Your task to perform on an android device: open sync settings in chrome Image 0: 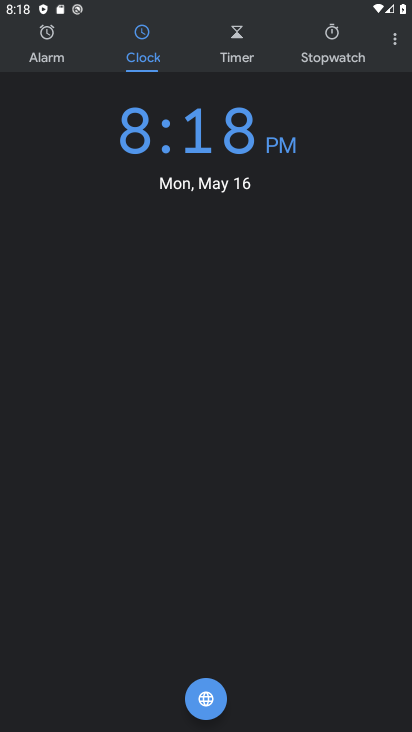
Step 0: press home button
Your task to perform on an android device: open sync settings in chrome Image 1: 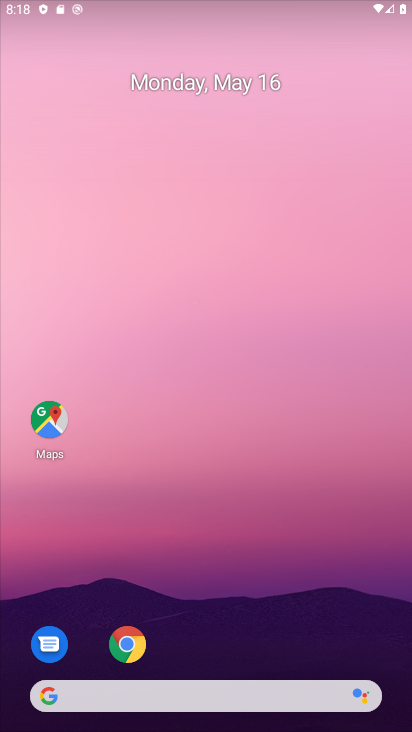
Step 1: click (118, 658)
Your task to perform on an android device: open sync settings in chrome Image 2: 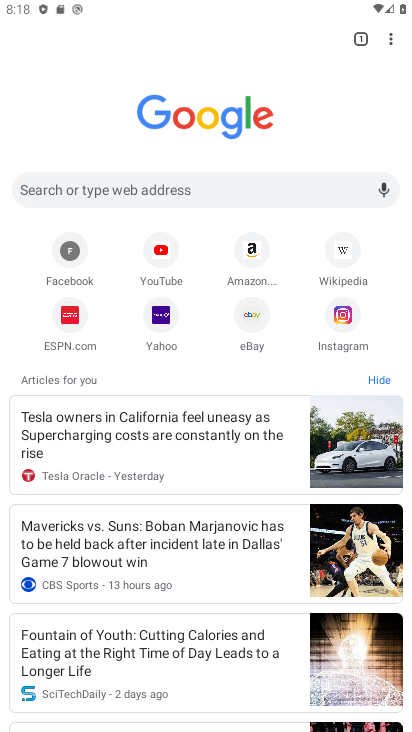
Step 2: click (385, 36)
Your task to perform on an android device: open sync settings in chrome Image 3: 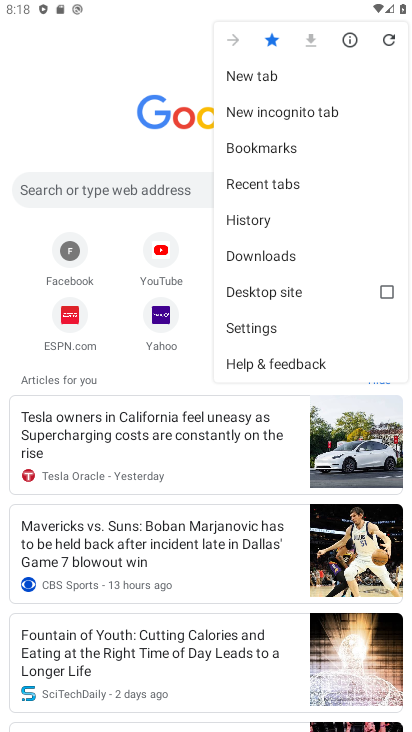
Step 3: click (273, 331)
Your task to perform on an android device: open sync settings in chrome Image 4: 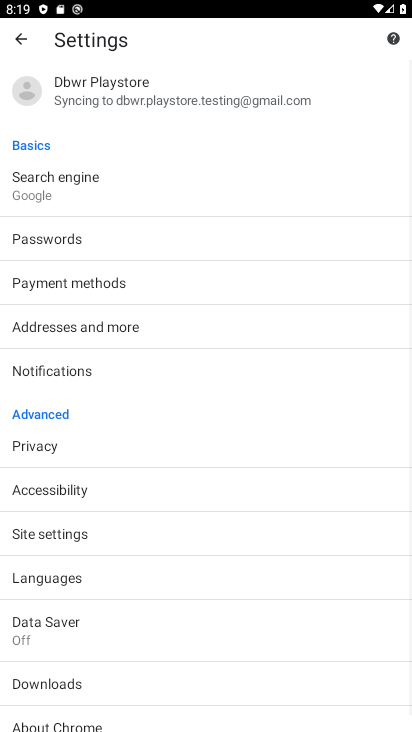
Step 4: click (53, 534)
Your task to perform on an android device: open sync settings in chrome Image 5: 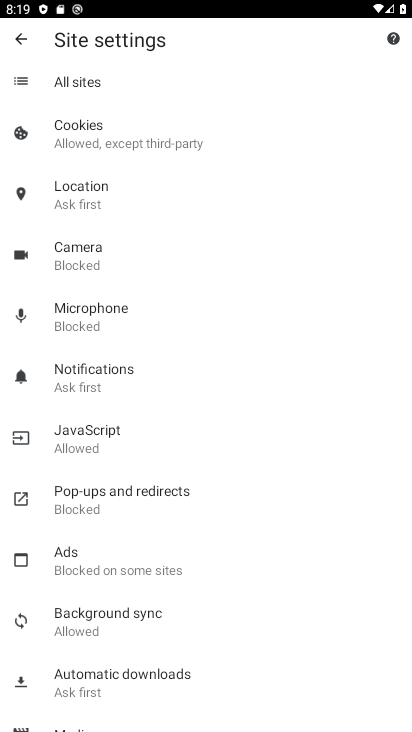
Step 5: click (140, 620)
Your task to perform on an android device: open sync settings in chrome Image 6: 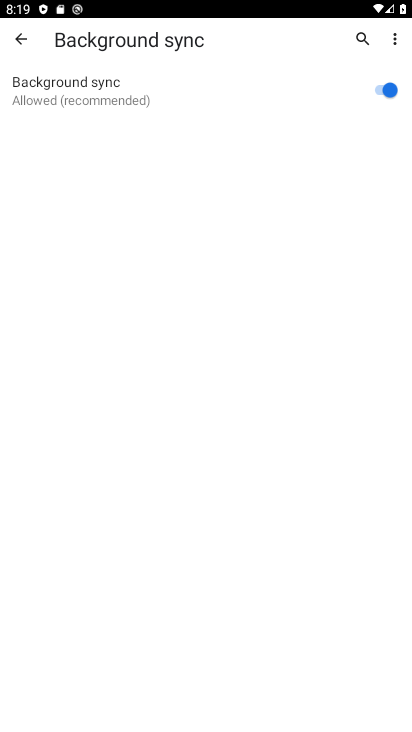
Step 6: task complete